Your task to perform on an android device: toggle javascript in the chrome app Image 0: 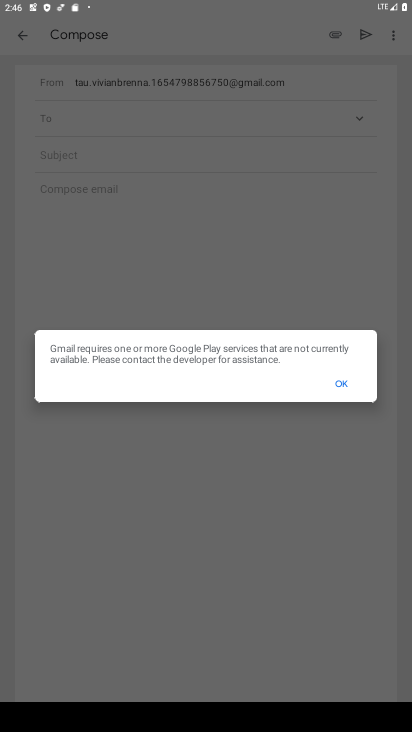
Step 0: press home button
Your task to perform on an android device: toggle javascript in the chrome app Image 1: 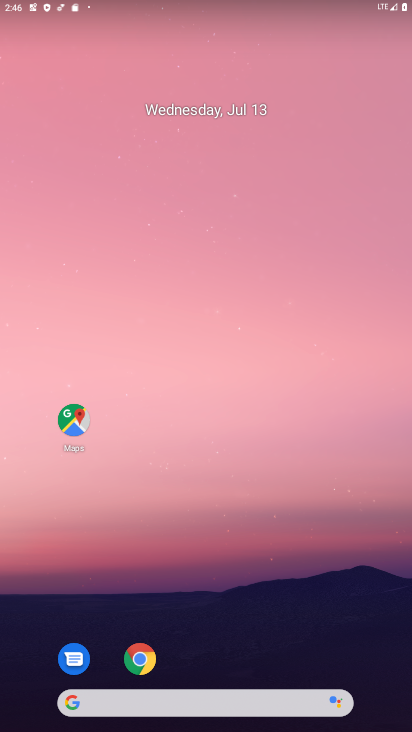
Step 1: click (136, 658)
Your task to perform on an android device: toggle javascript in the chrome app Image 2: 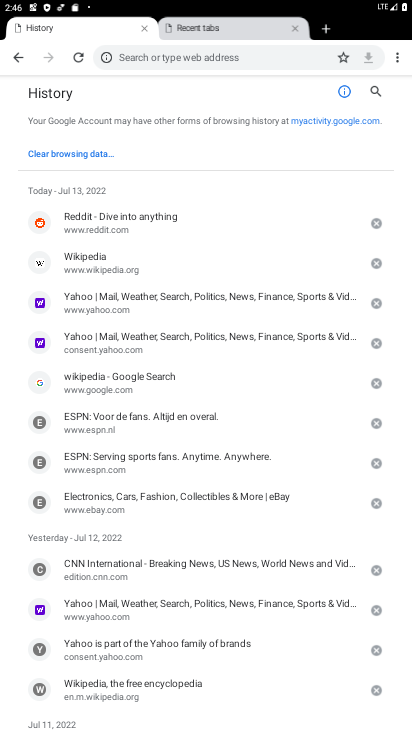
Step 2: click (397, 60)
Your task to perform on an android device: toggle javascript in the chrome app Image 3: 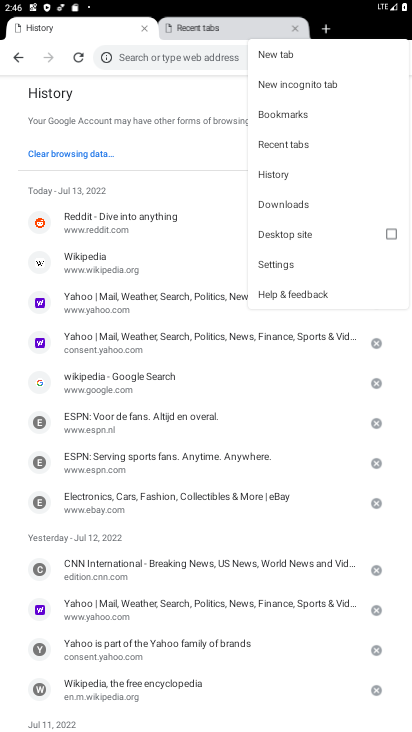
Step 3: click (274, 258)
Your task to perform on an android device: toggle javascript in the chrome app Image 4: 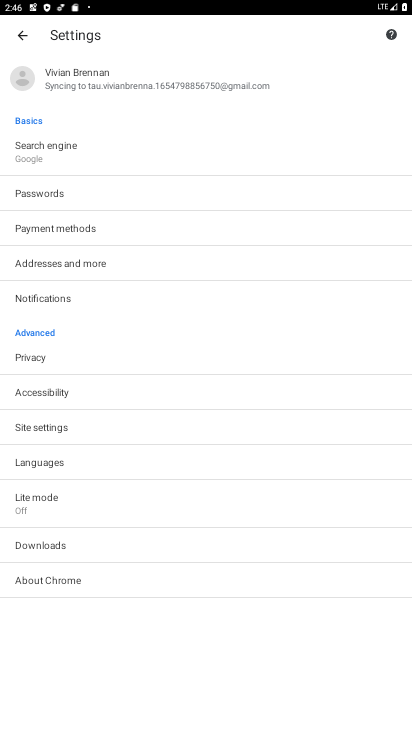
Step 4: click (37, 426)
Your task to perform on an android device: toggle javascript in the chrome app Image 5: 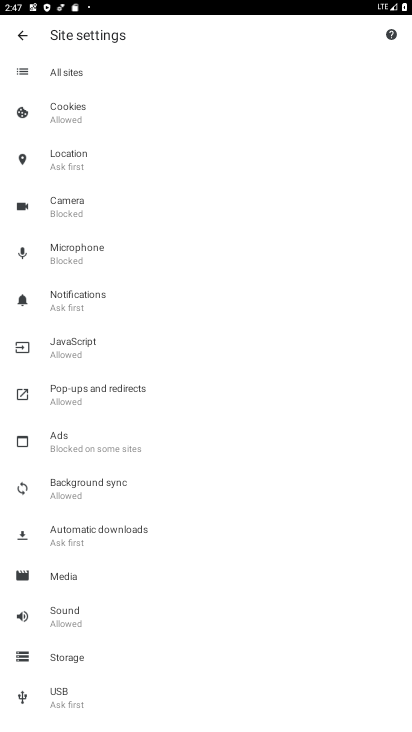
Step 5: click (66, 344)
Your task to perform on an android device: toggle javascript in the chrome app Image 6: 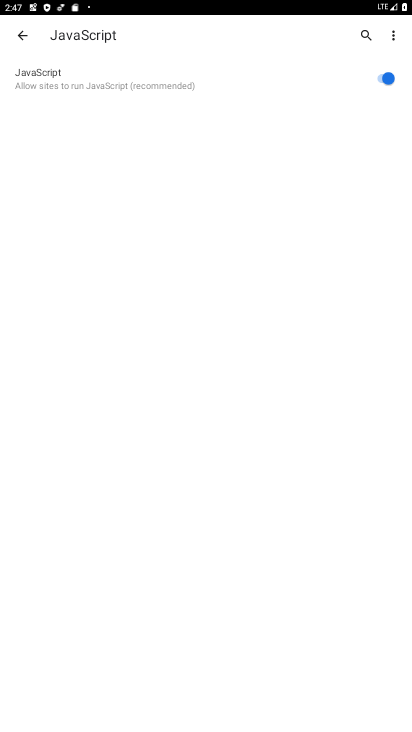
Step 6: click (376, 76)
Your task to perform on an android device: toggle javascript in the chrome app Image 7: 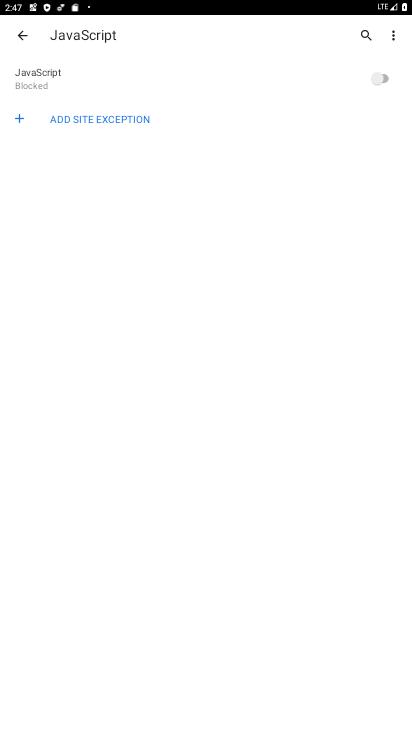
Step 7: task complete